Your task to perform on an android device: check out phone information Image 0: 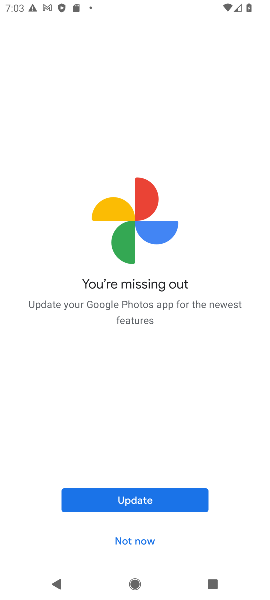
Step 0: press home button
Your task to perform on an android device: check out phone information Image 1: 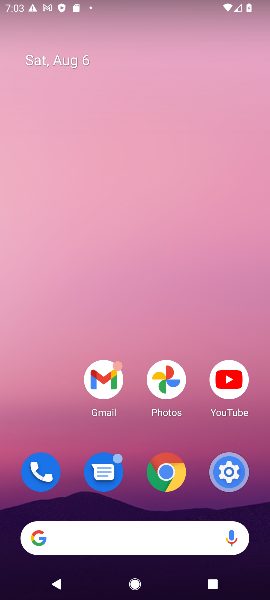
Step 1: drag from (256, 511) to (221, 76)
Your task to perform on an android device: check out phone information Image 2: 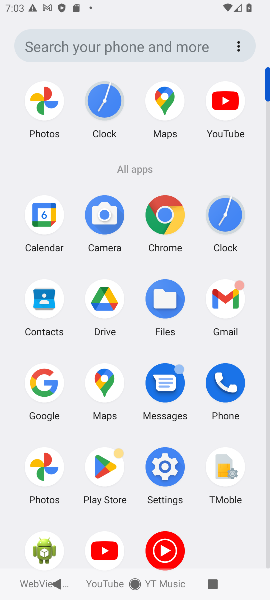
Step 2: click (163, 469)
Your task to perform on an android device: check out phone information Image 3: 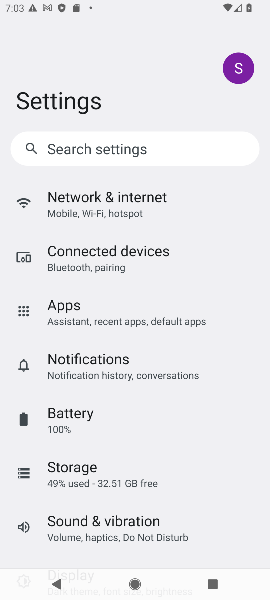
Step 3: drag from (236, 516) to (215, 154)
Your task to perform on an android device: check out phone information Image 4: 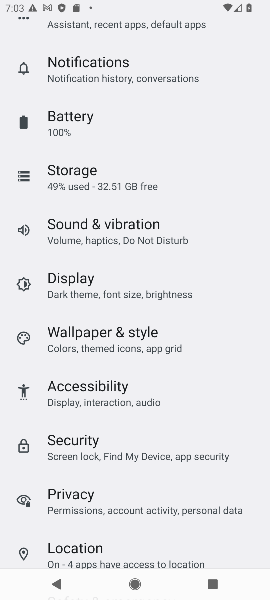
Step 4: drag from (232, 541) to (219, 236)
Your task to perform on an android device: check out phone information Image 5: 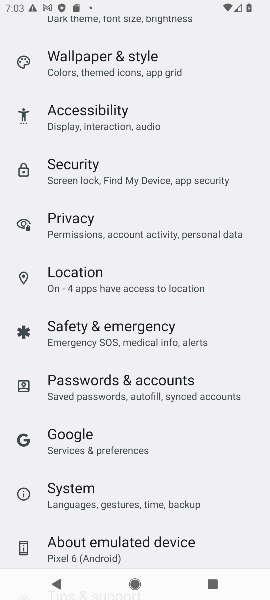
Step 5: drag from (226, 473) to (217, 225)
Your task to perform on an android device: check out phone information Image 6: 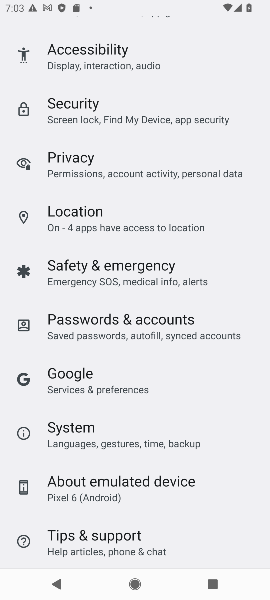
Step 6: click (80, 478)
Your task to perform on an android device: check out phone information Image 7: 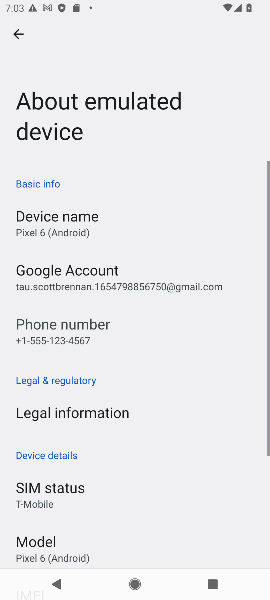
Step 7: task complete